Your task to perform on an android device: Go to notification settings Image 0: 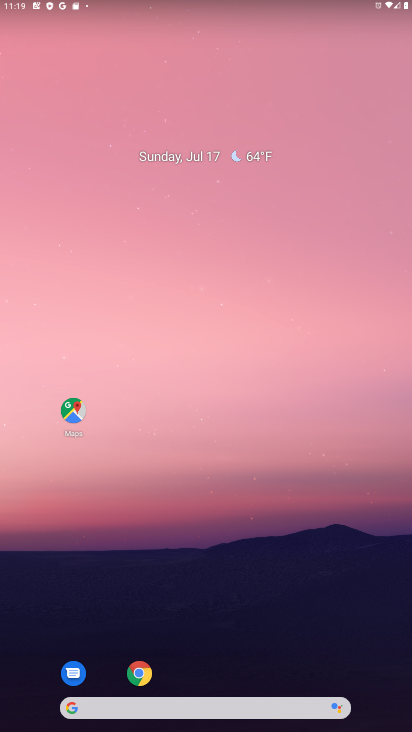
Step 0: drag from (206, 663) to (231, 72)
Your task to perform on an android device: Go to notification settings Image 1: 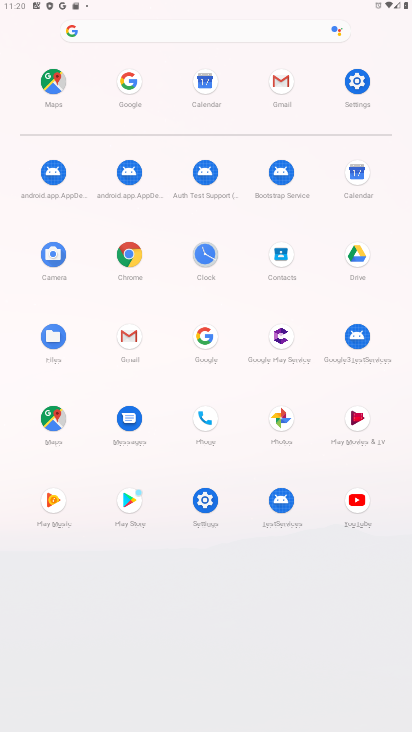
Step 1: click (210, 497)
Your task to perform on an android device: Go to notification settings Image 2: 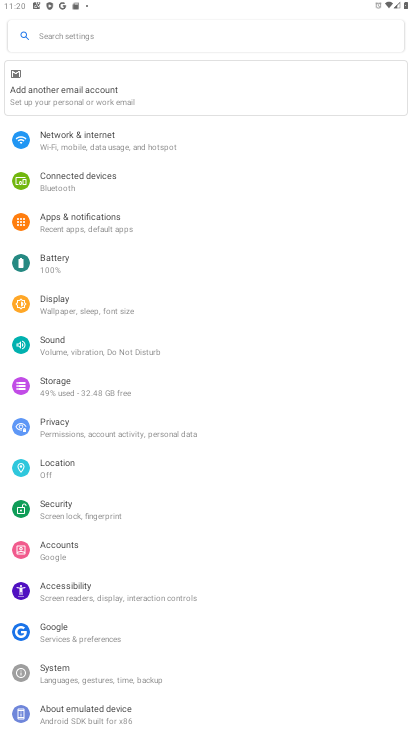
Step 2: click (103, 221)
Your task to perform on an android device: Go to notification settings Image 3: 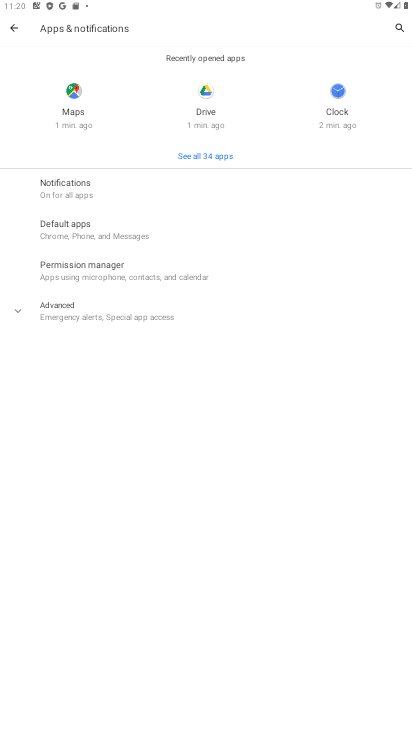
Step 3: click (122, 179)
Your task to perform on an android device: Go to notification settings Image 4: 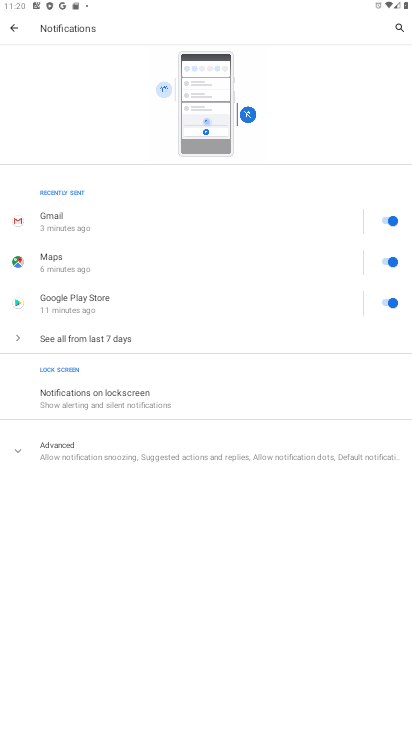
Step 4: task complete